Your task to perform on an android device: Open the stopwatch Image 0: 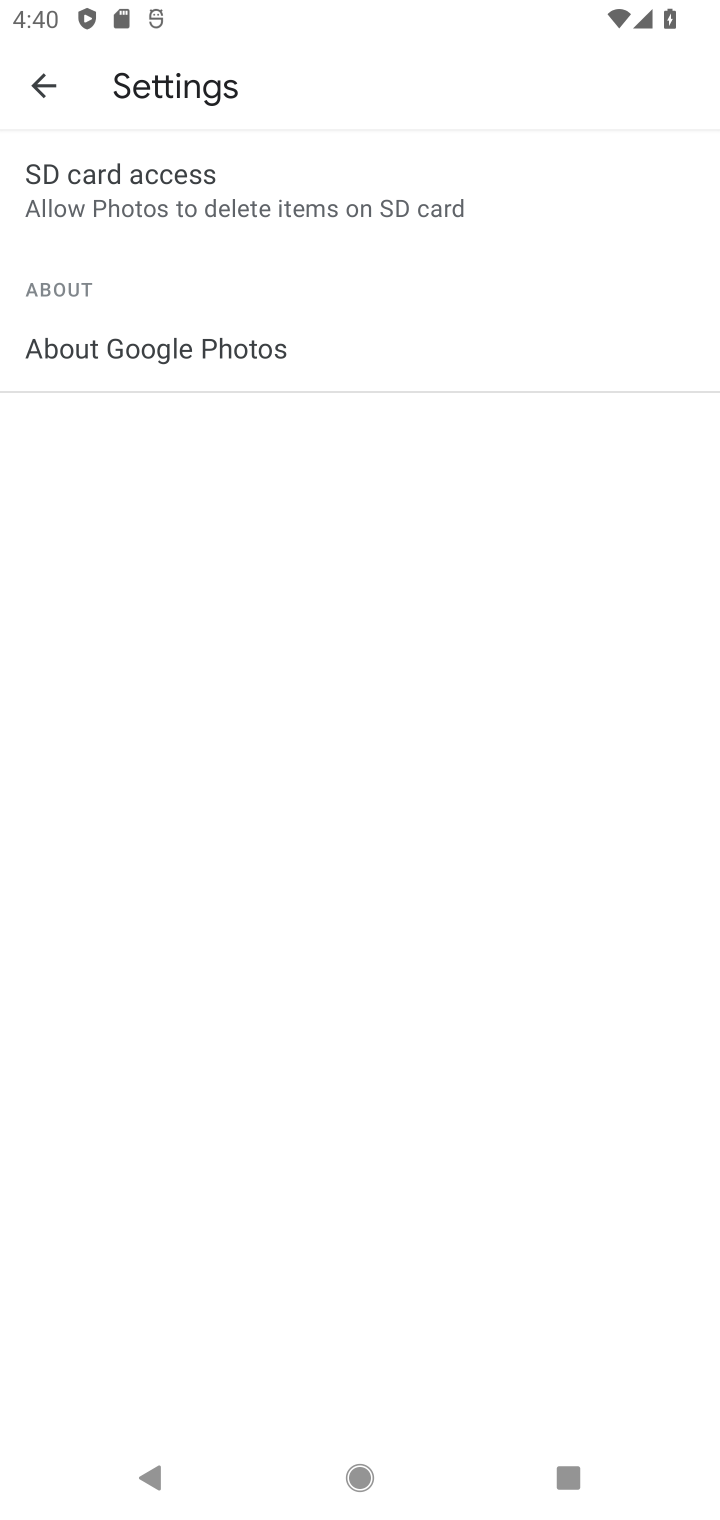
Step 0: press back button
Your task to perform on an android device: Open the stopwatch Image 1: 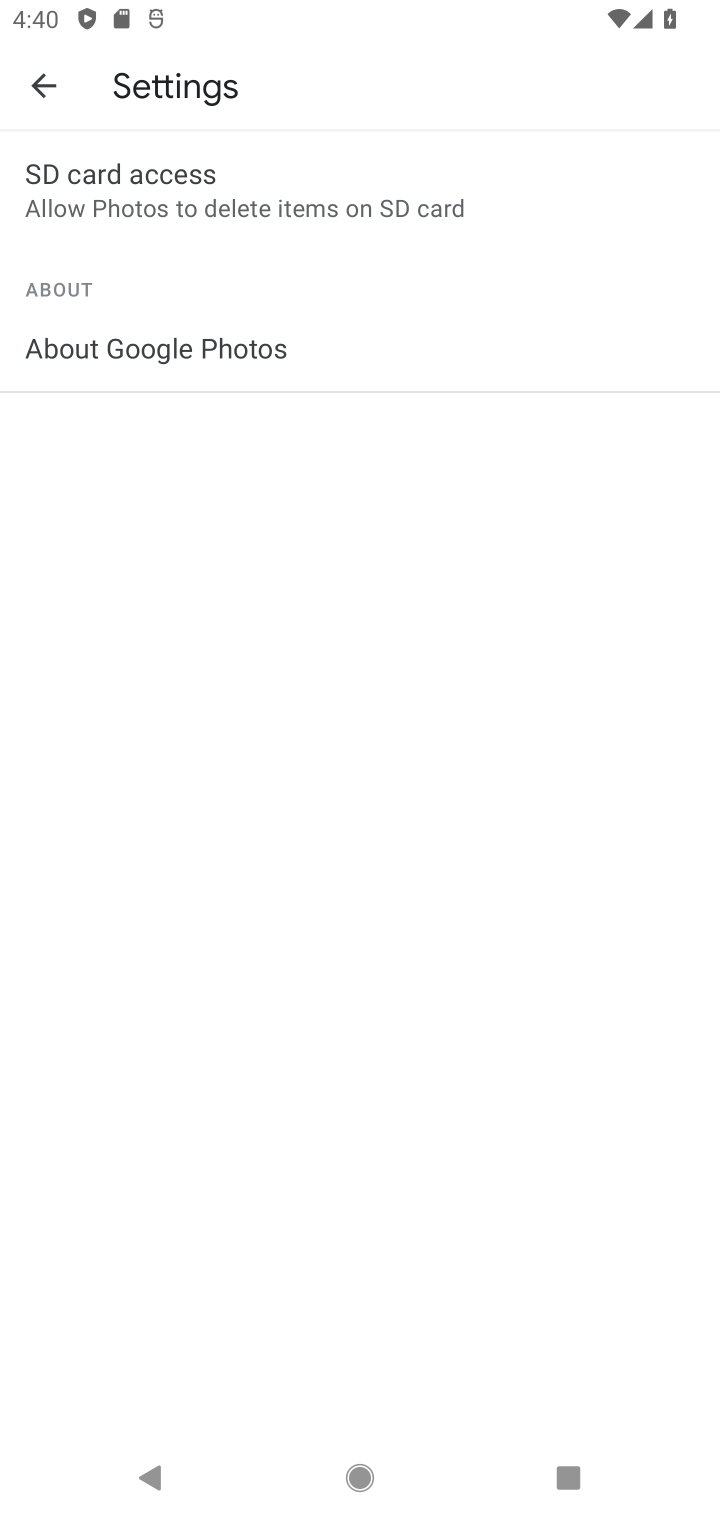
Step 1: press back button
Your task to perform on an android device: Open the stopwatch Image 2: 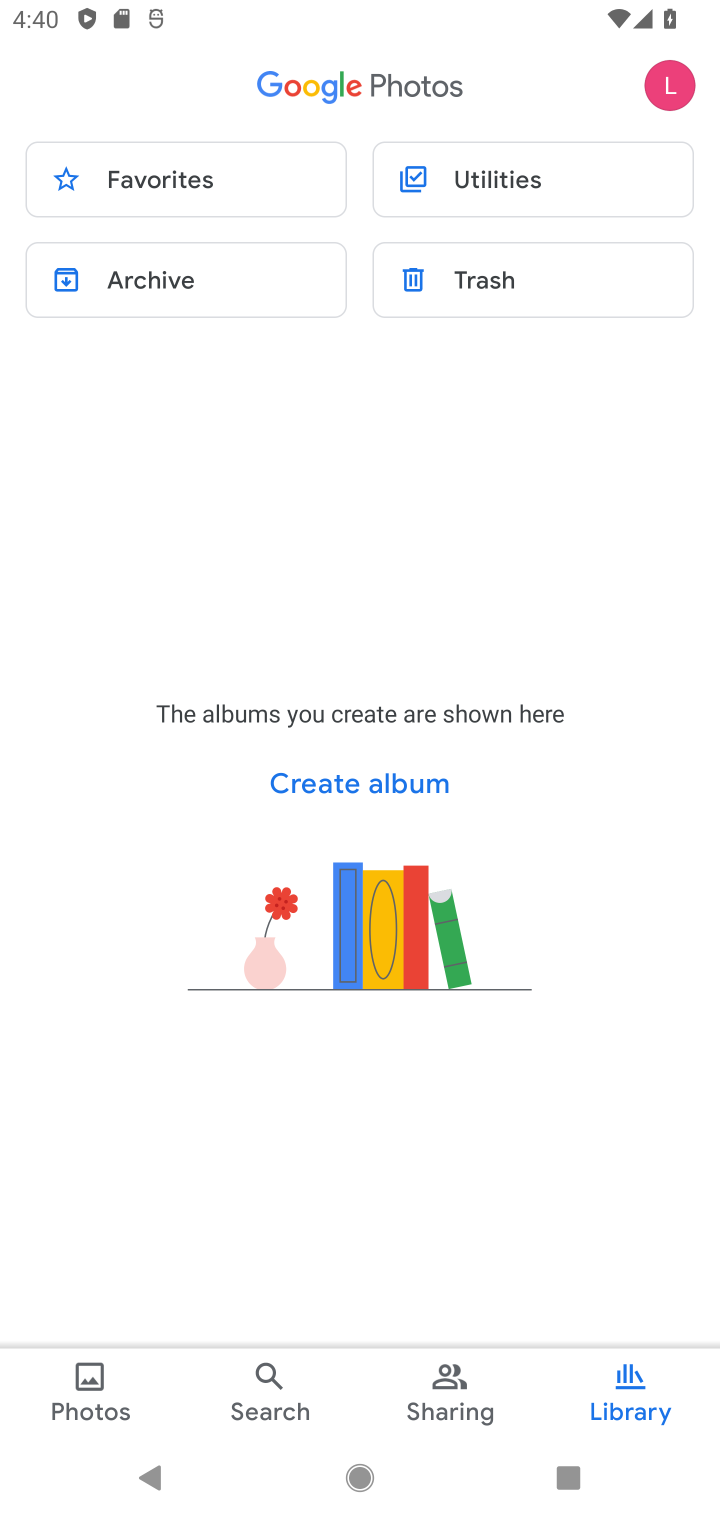
Step 2: press back button
Your task to perform on an android device: Open the stopwatch Image 3: 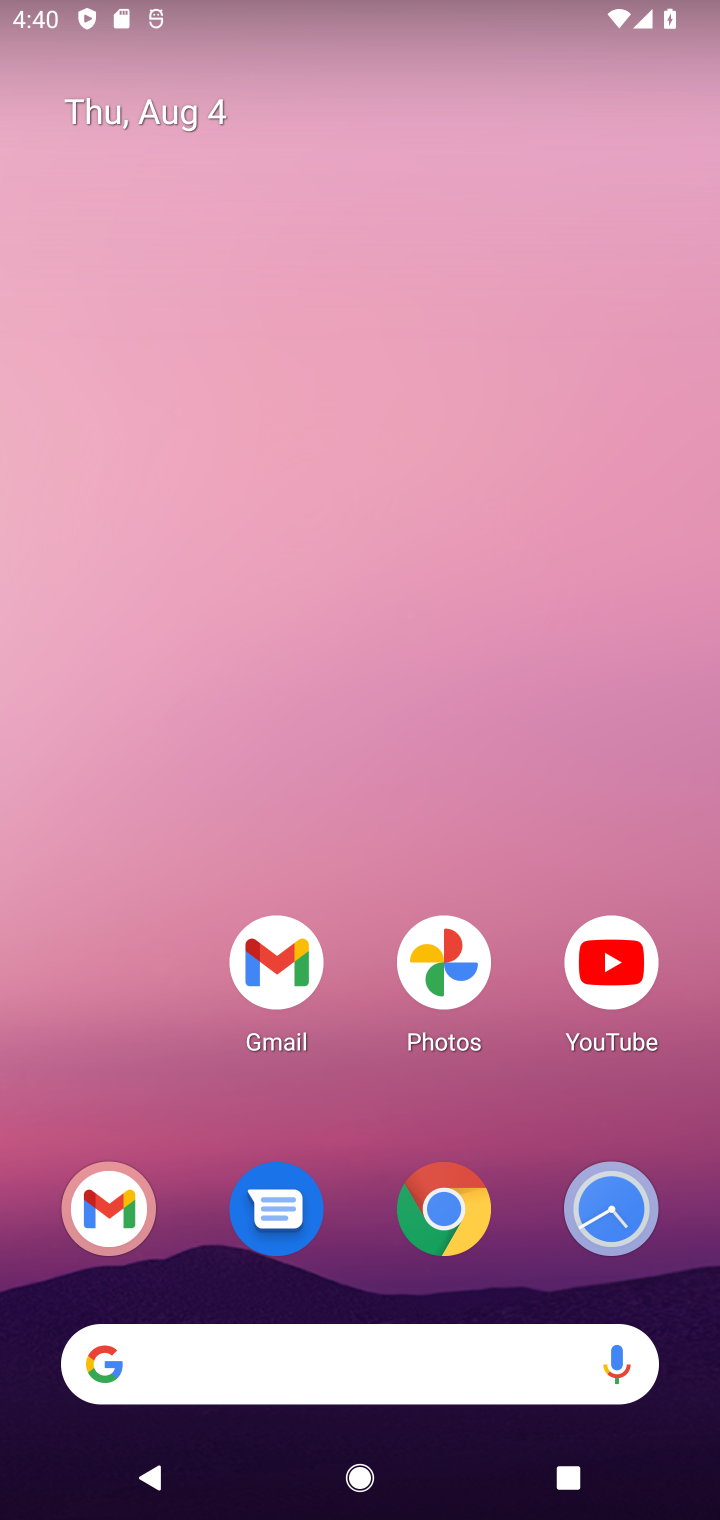
Step 3: click (602, 1228)
Your task to perform on an android device: Open the stopwatch Image 4: 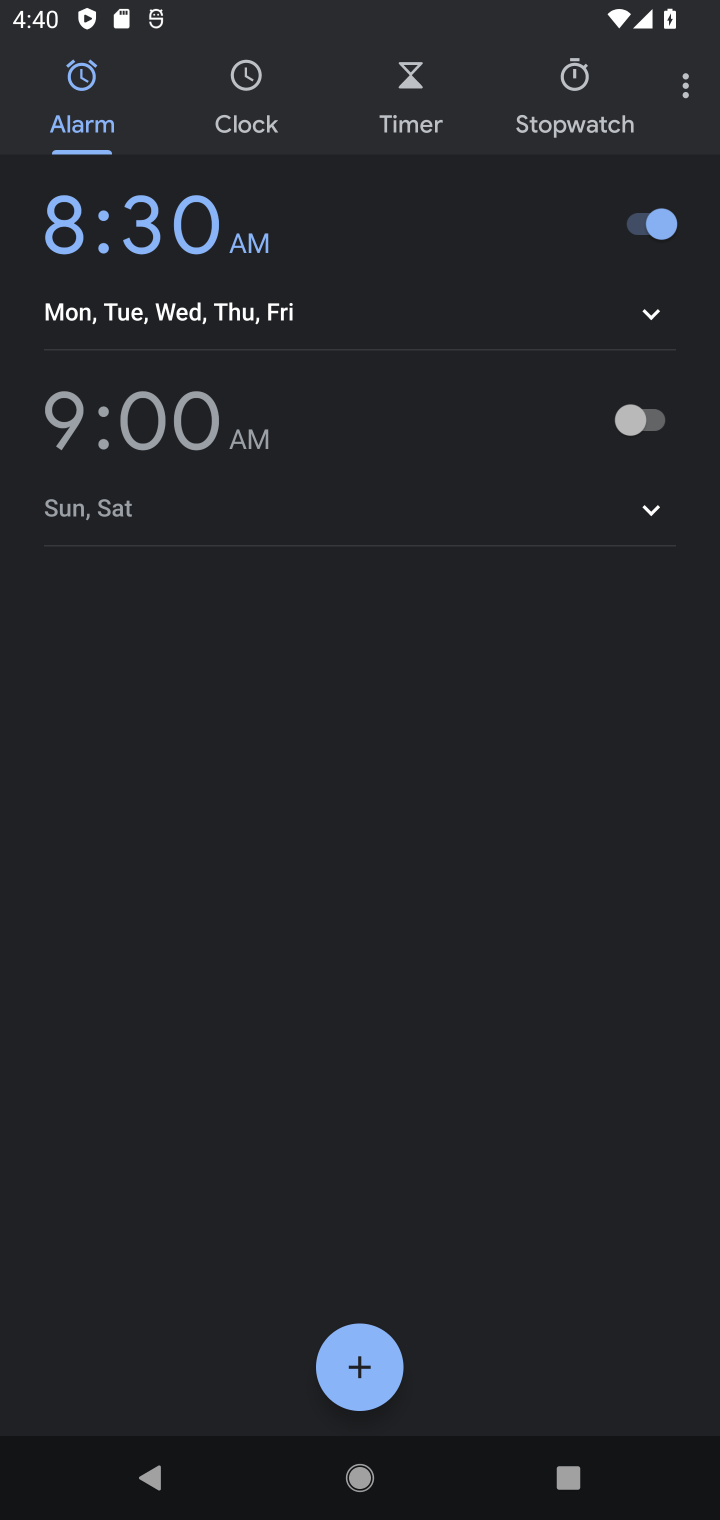
Step 4: click (605, 105)
Your task to perform on an android device: Open the stopwatch Image 5: 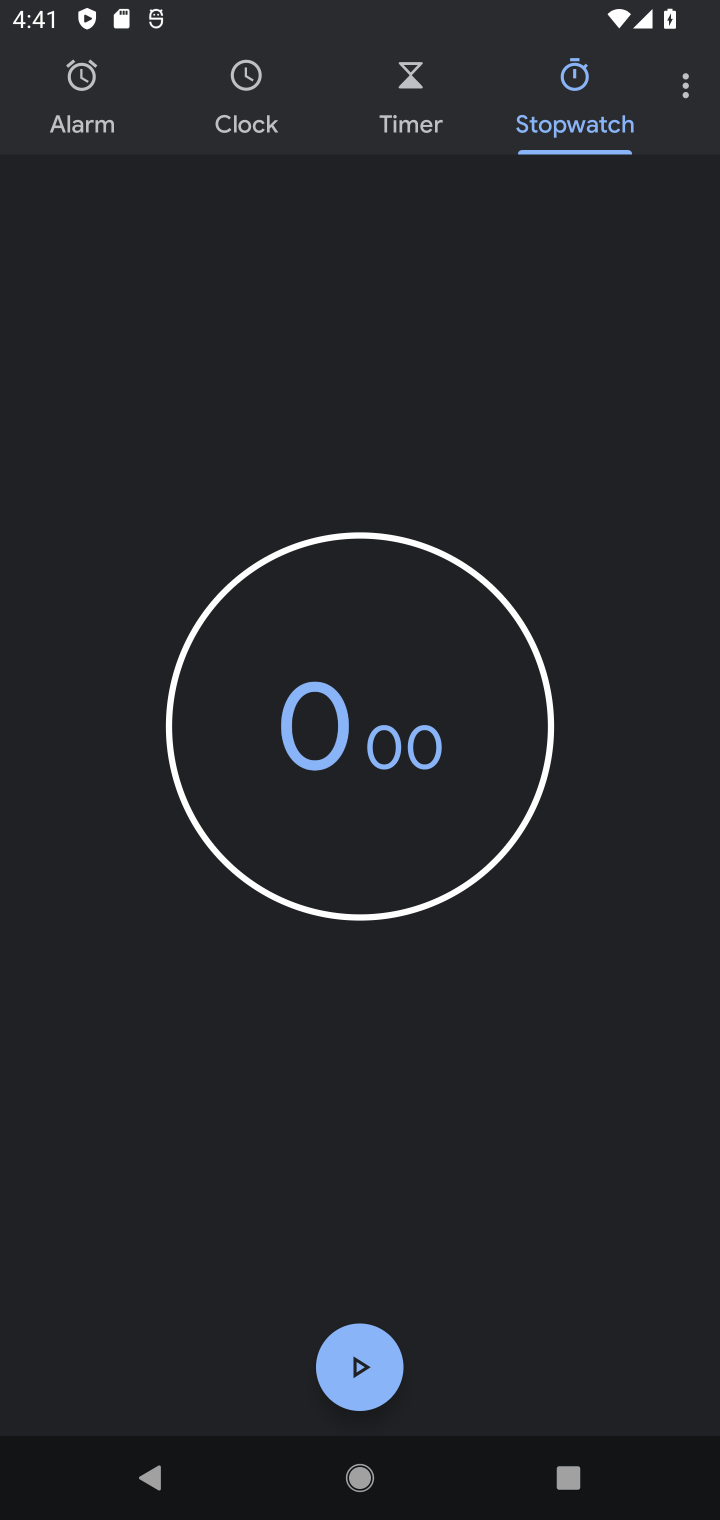
Step 5: task complete